Your task to perform on an android device: Toggle the flashlight Image 0: 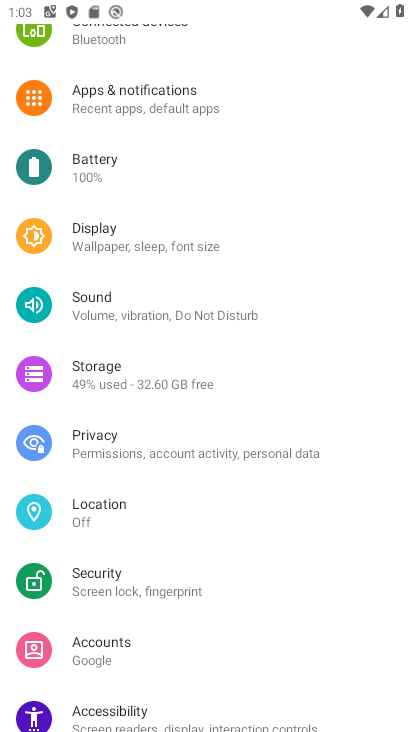
Step 0: press home button
Your task to perform on an android device: Toggle the flashlight Image 1: 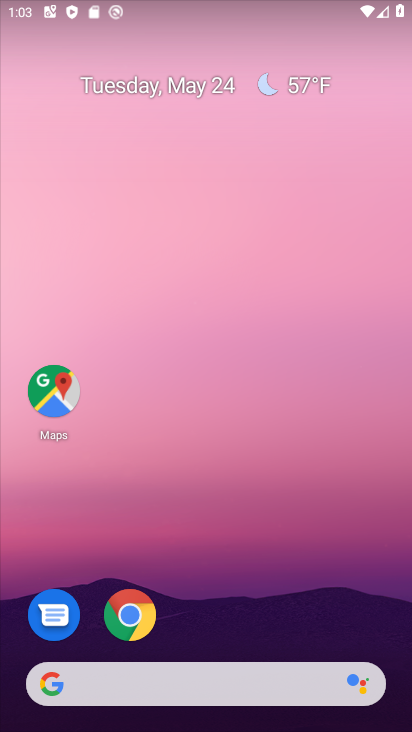
Step 1: drag from (243, 11) to (288, 412)
Your task to perform on an android device: Toggle the flashlight Image 2: 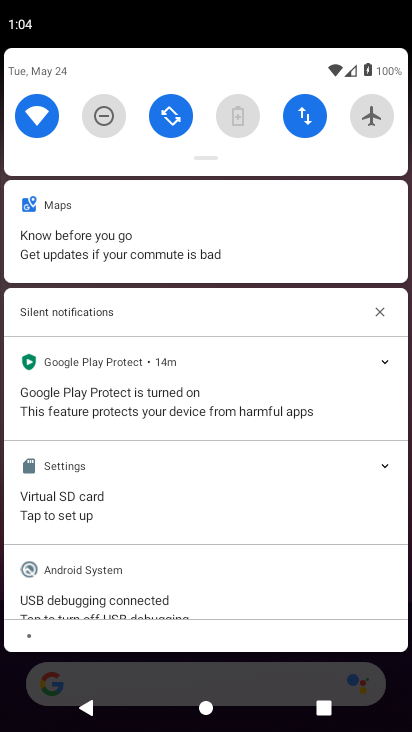
Step 2: drag from (230, 75) to (277, 500)
Your task to perform on an android device: Toggle the flashlight Image 3: 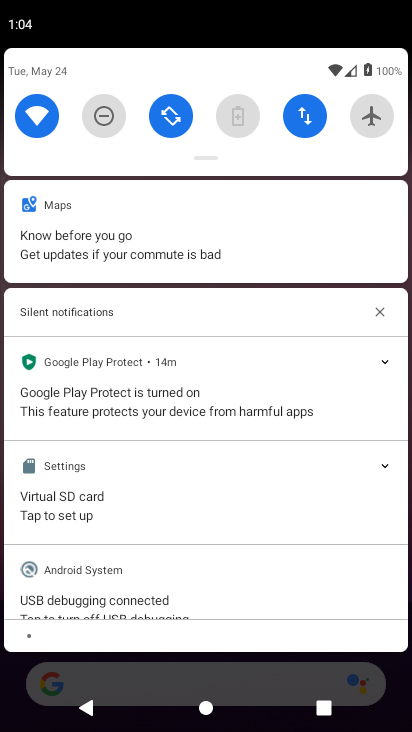
Step 3: drag from (257, 120) to (351, 532)
Your task to perform on an android device: Toggle the flashlight Image 4: 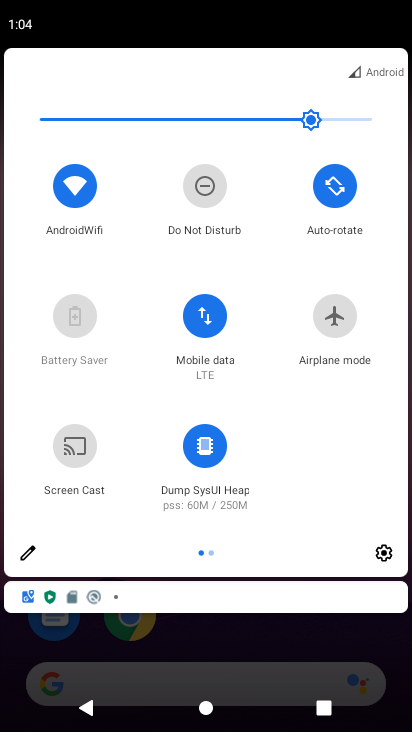
Step 4: drag from (359, 455) to (0, 544)
Your task to perform on an android device: Toggle the flashlight Image 5: 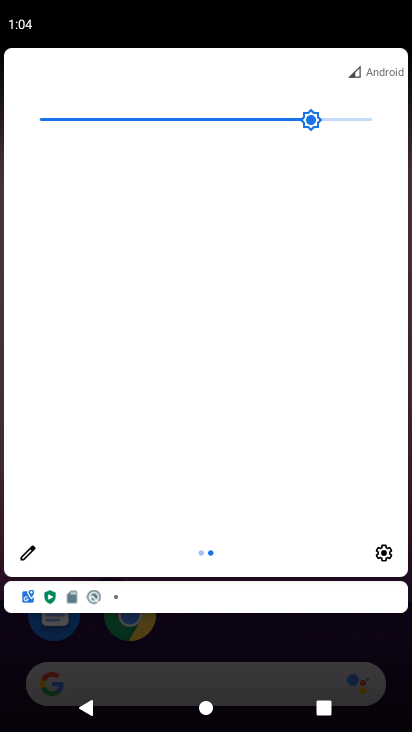
Step 5: click (20, 554)
Your task to perform on an android device: Toggle the flashlight Image 6: 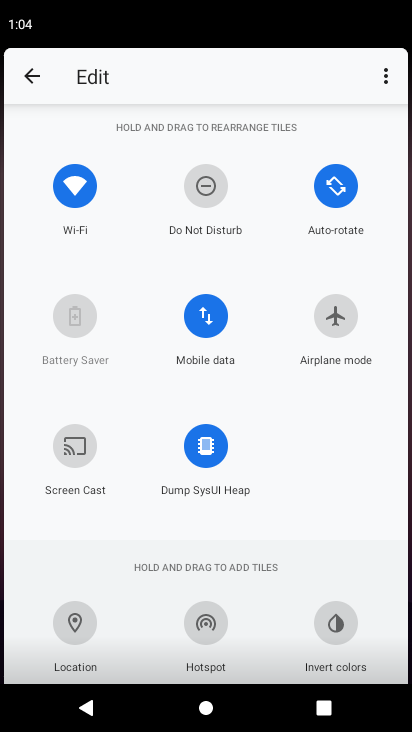
Step 6: task complete